Your task to perform on an android device: Open ESPN.com Image 0: 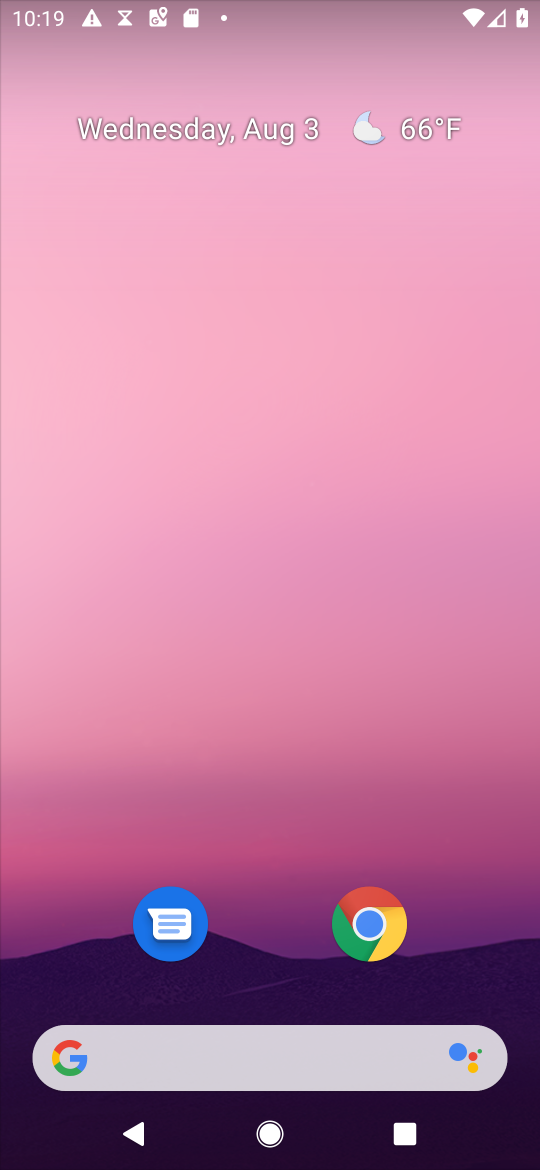
Step 0: press home button
Your task to perform on an android device: Open ESPN.com Image 1: 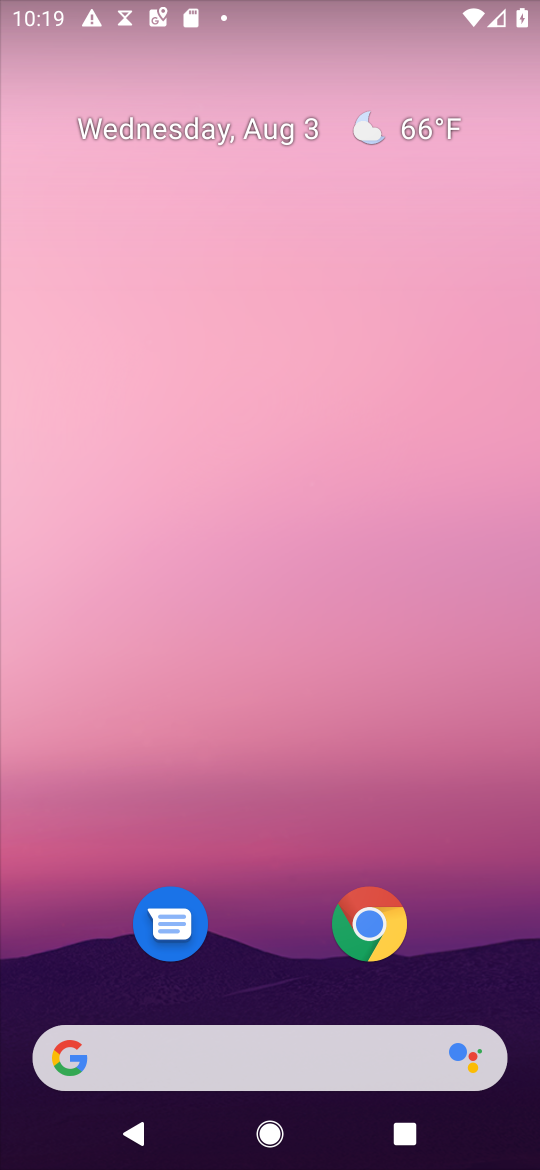
Step 1: drag from (288, 995) to (287, 107)
Your task to perform on an android device: Open ESPN.com Image 2: 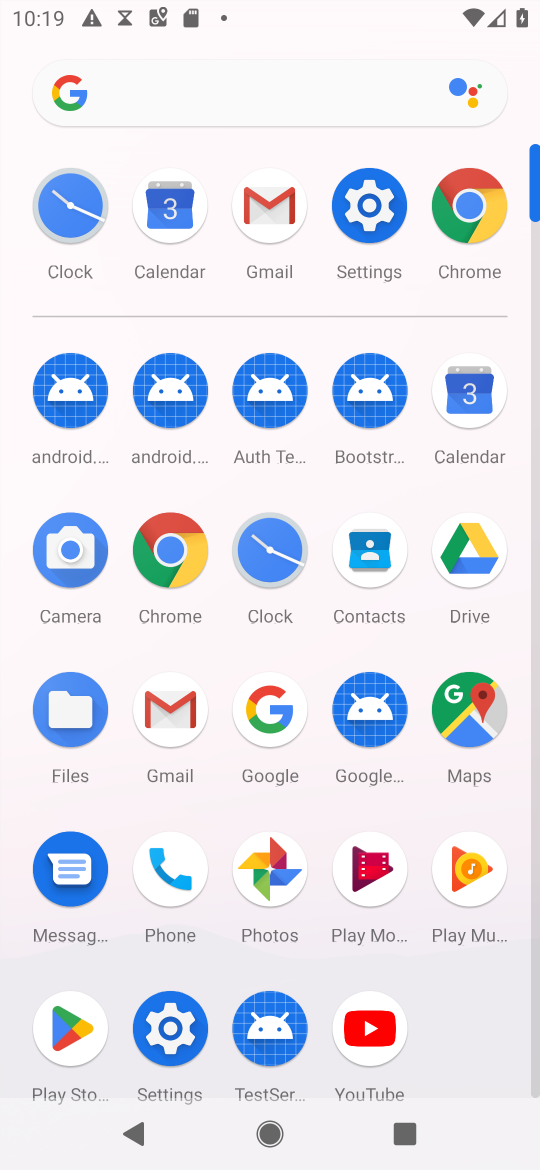
Step 2: click (166, 536)
Your task to perform on an android device: Open ESPN.com Image 3: 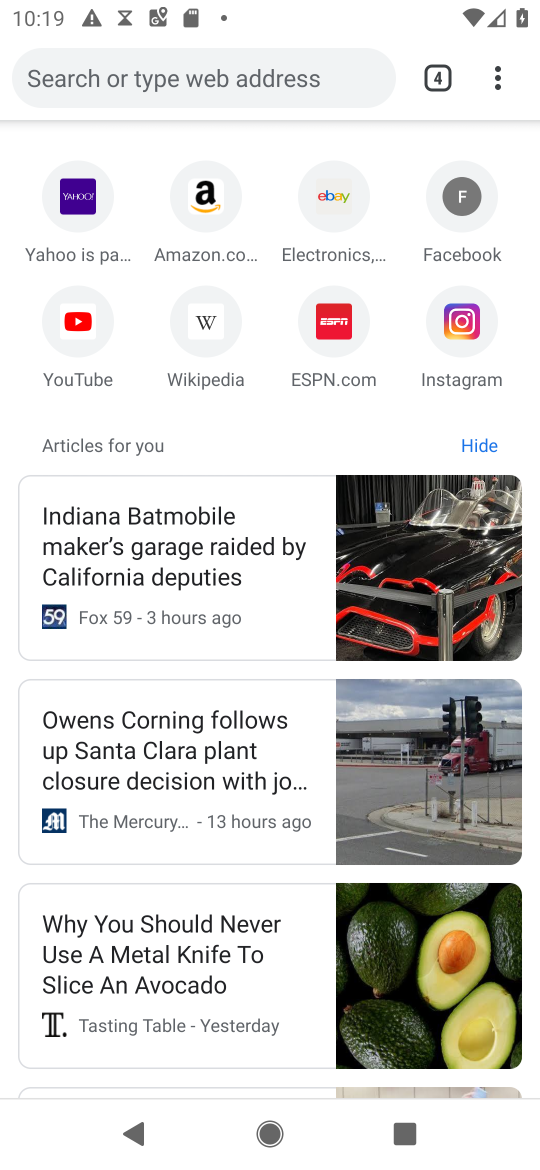
Step 3: click (158, 71)
Your task to perform on an android device: Open ESPN.com Image 4: 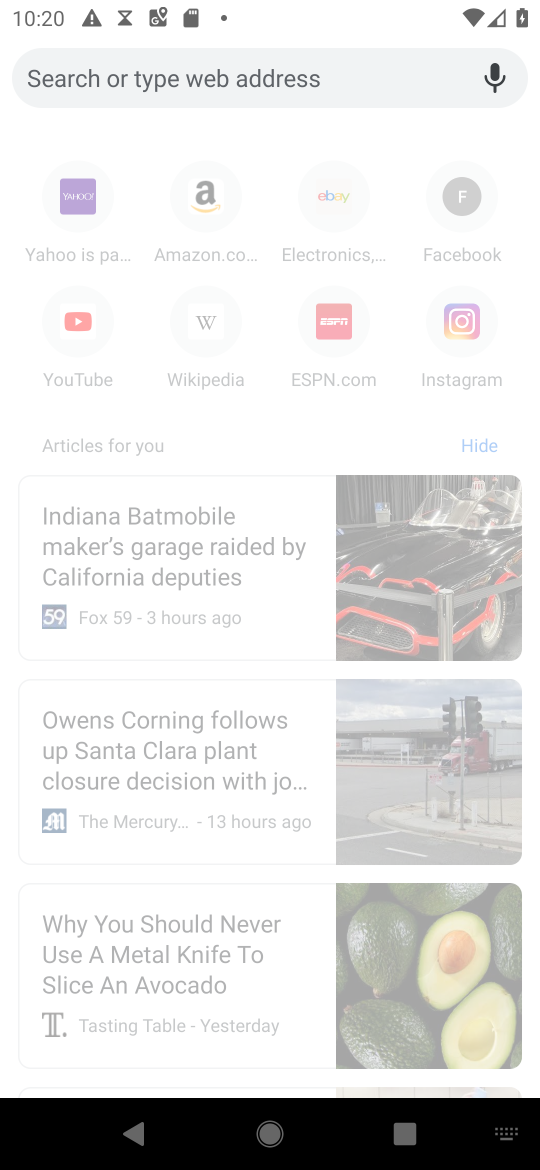
Step 4: click (322, 352)
Your task to perform on an android device: Open ESPN.com Image 5: 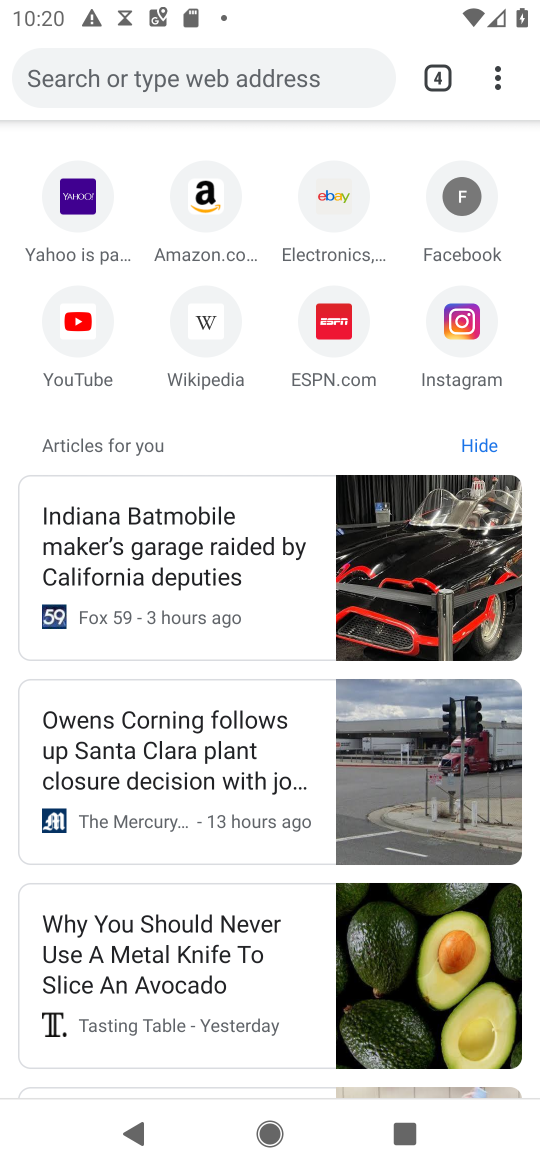
Step 5: click (335, 318)
Your task to perform on an android device: Open ESPN.com Image 6: 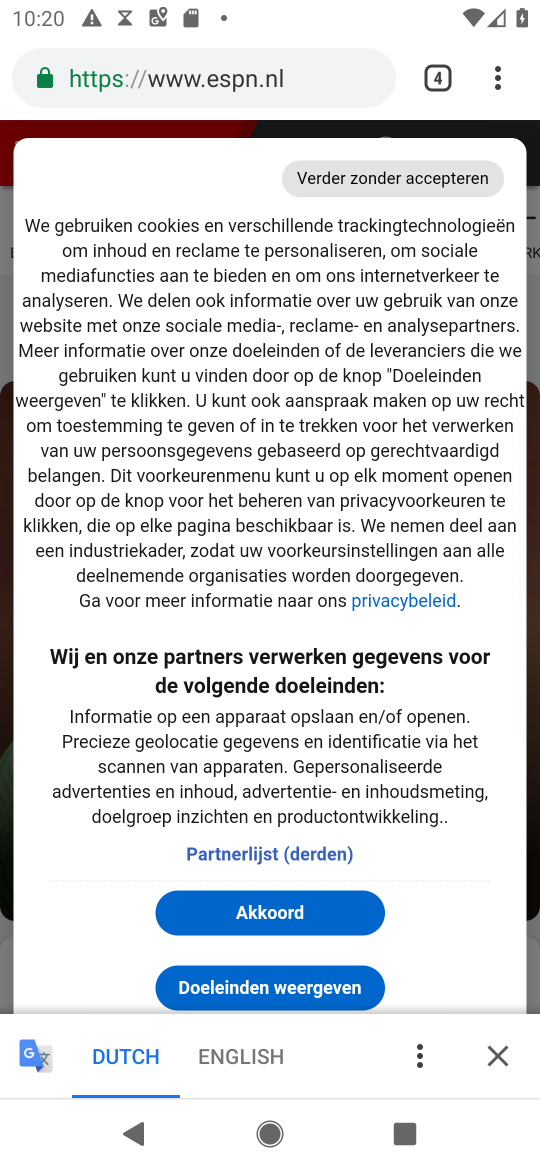
Step 6: click (272, 902)
Your task to perform on an android device: Open ESPN.com Image 7: 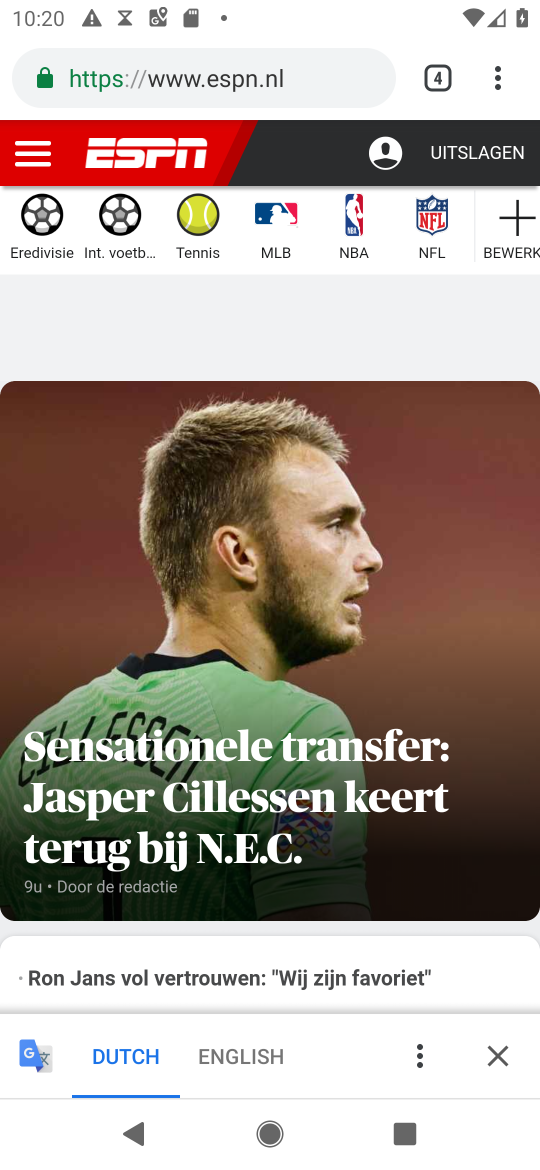
Step 7: click (497, 1058)
Your task to perform on an android device: Open ESPN.com Image 8: 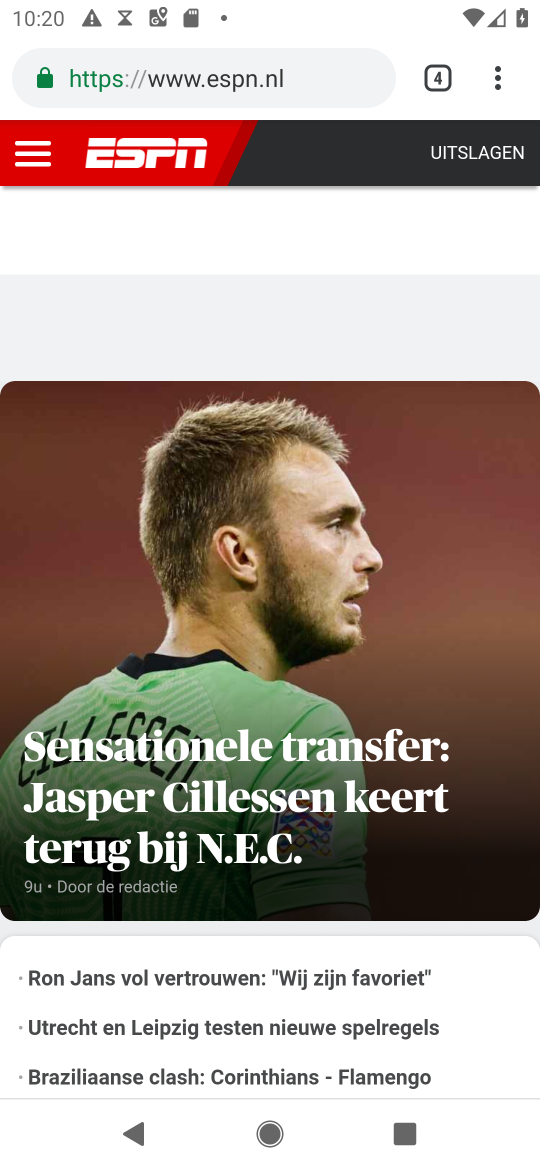
Step 8: task complete